Your task to perform on an android device: Search for Italian restaurants on Maps Image 0: 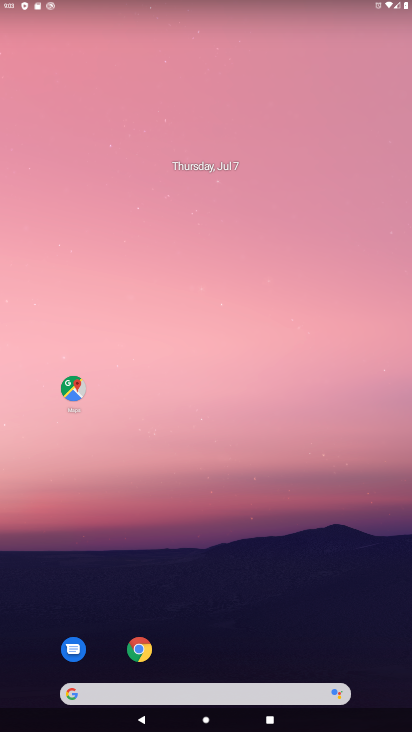
Step 0: drag from (280, 713) to (194, 1)
Your task to perform on an android device: Search for Italian restaurants on Maps Image 1: 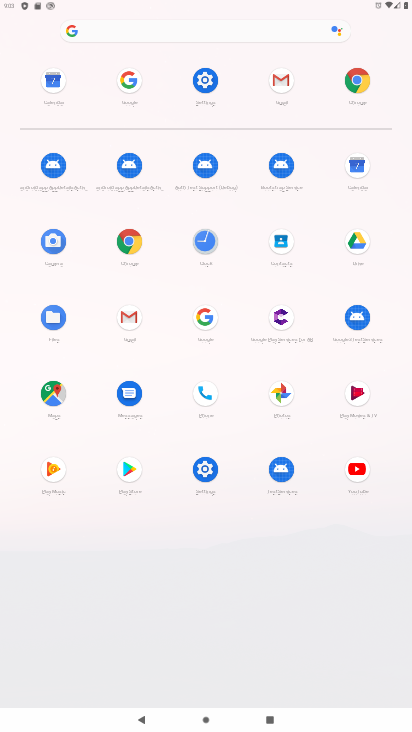
Step 1: click (52, 388)
Your task to perform on an android device: Search for Italian restaurants on Maps Image 2: 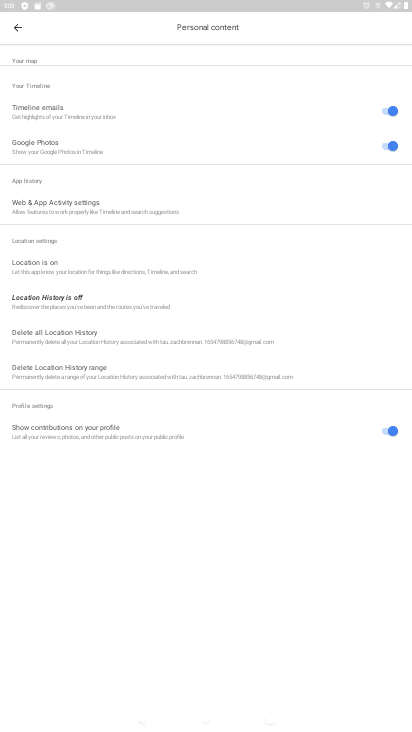
Step 2: press back button
Your task to perform on an android device: Search for Italian restaurants on Maps Image 3: 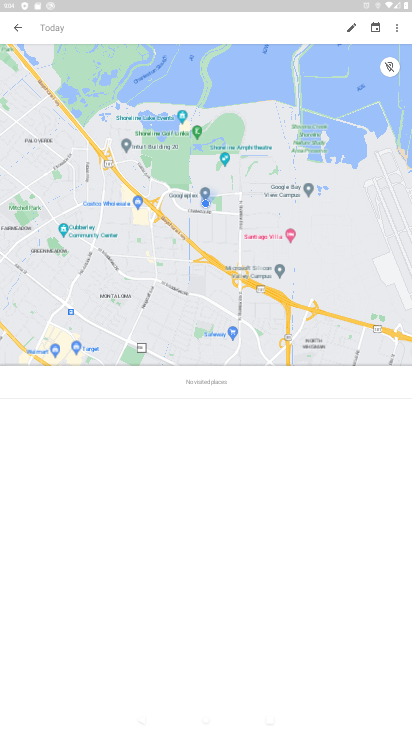
Step 3: press back button
Your task to perform on an android device: Search for Italian restaurants on Maps Image 4: 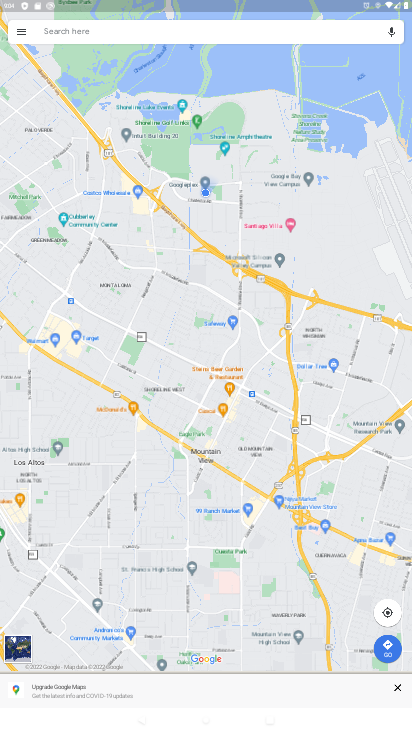
Step 4: click (109, 35)
Your task to perform on an android device: Search for Italian restaurants on Maps Image 5: 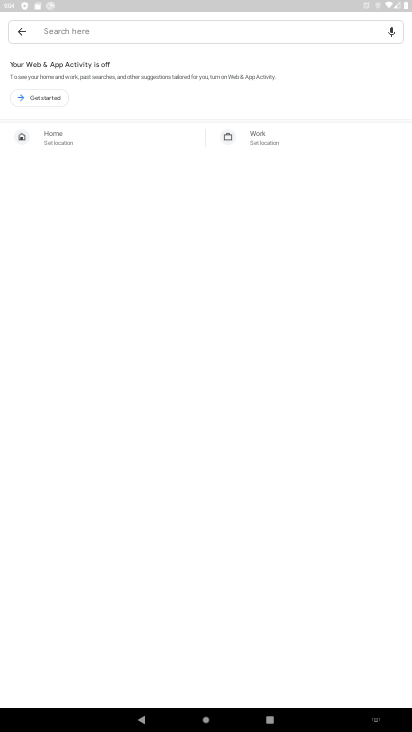
Step 5: type "italian restaurrant"
Your task to perform on an android device: Search for Italian restaurants on Maps Image 6: 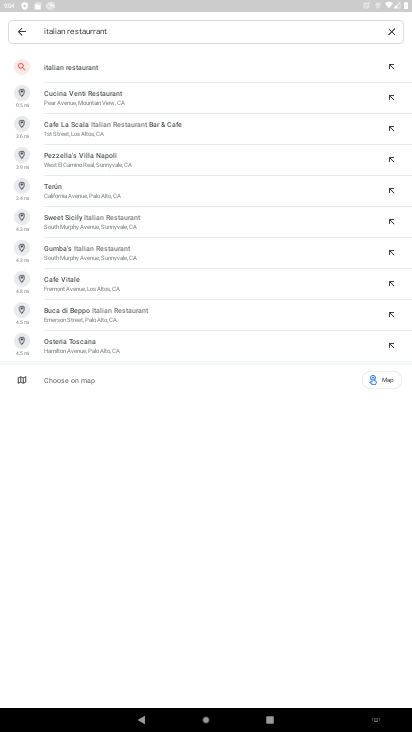
Step 6: click (109, 75)
Your task to perform on an android device: Search for Italian restaurants on Maps Image 7: 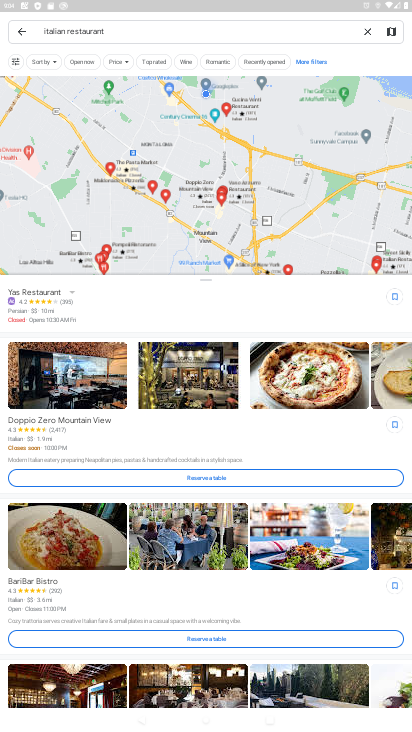
Step 7: task complete